Your task to perform on an android device: change the clock display to analog Image 0: 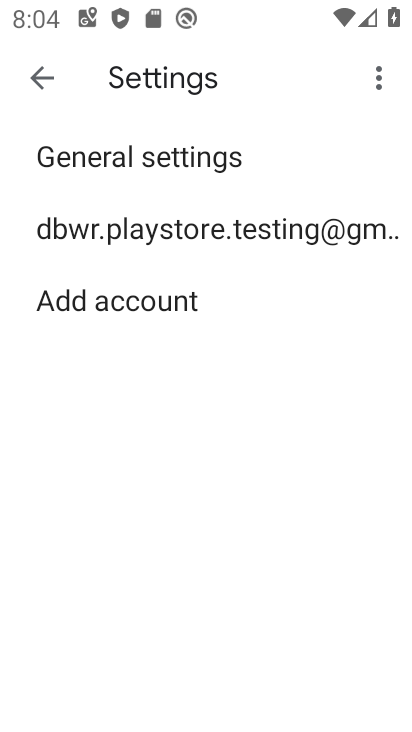
Step 0: press home button
Your task to perform on an android device: change the clock display to analog Image 1: 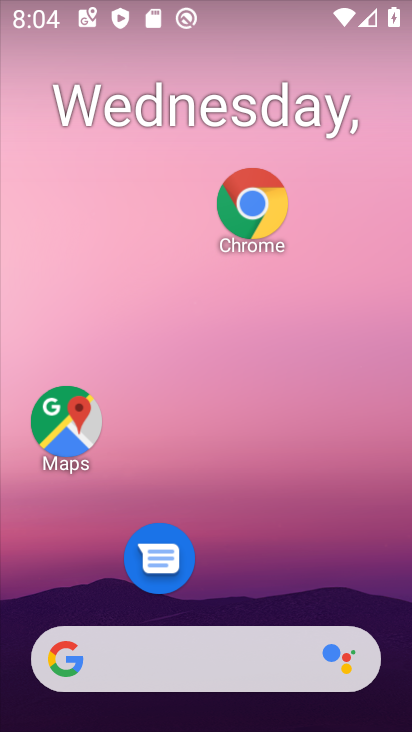
Step 1: drag from (234, 581) to (269, 1)
Your task to perform on an android device: change the clock display to analog Image 2: 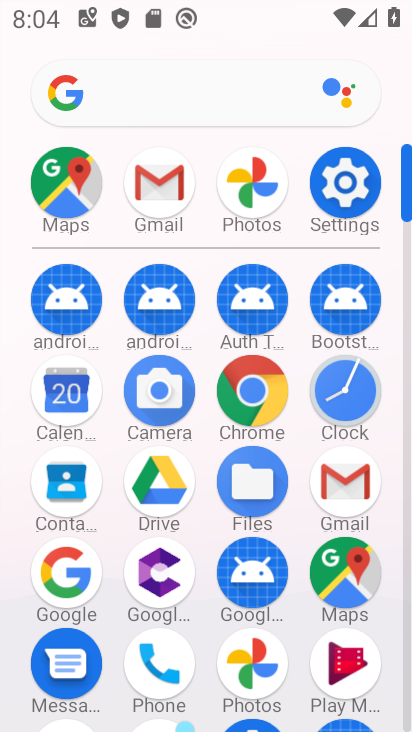
Step 2: click (342, 385)
Your task to perform on an android device: change the clock display to analog Image 3: 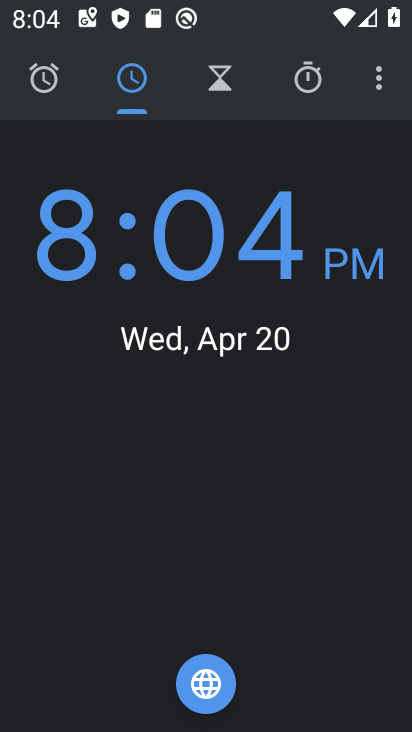
Step 3: click (377, 69)
Your task to perform on an android device: change the clock display to analog Image 4: 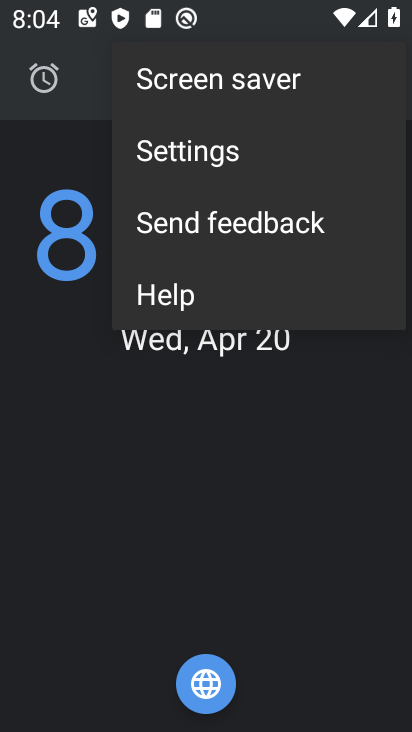
Step 4: click (256, 157)
Your task to perform on an android device: change the clock display to analog Image 5: 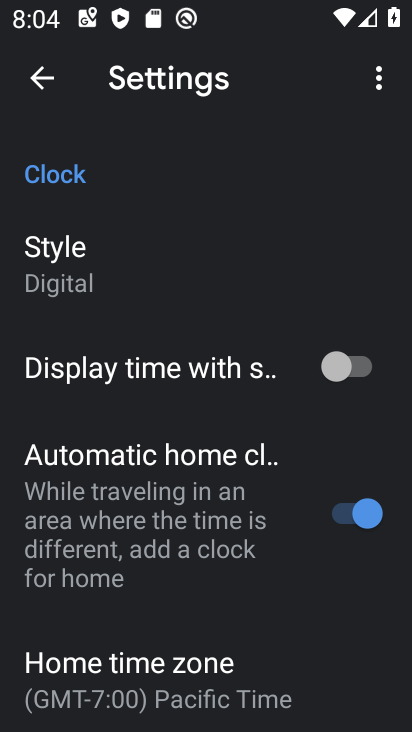
Step 5: click (123, 270)
Your task to perform on an android device: change the clock display to analog Image 6: 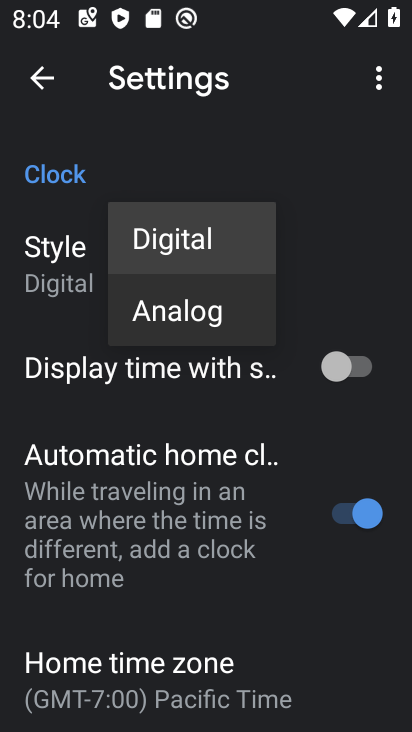
Step 6: click (175, 317)
Your task to perform on an android device: change the clock display to analog Image 7: 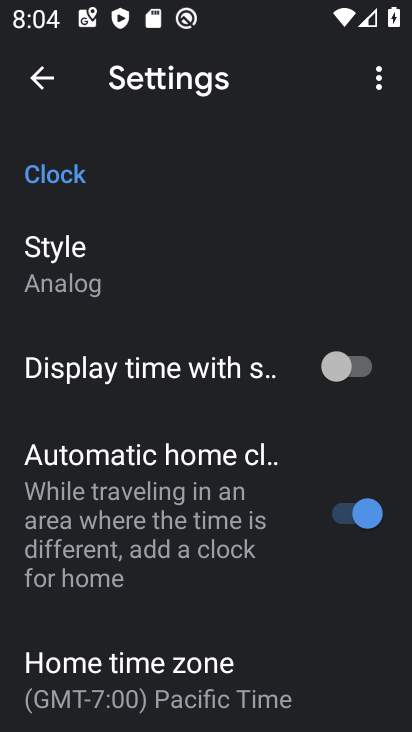
Step 7: task complete